Your task to perform on an android device: Open maps Image 0: 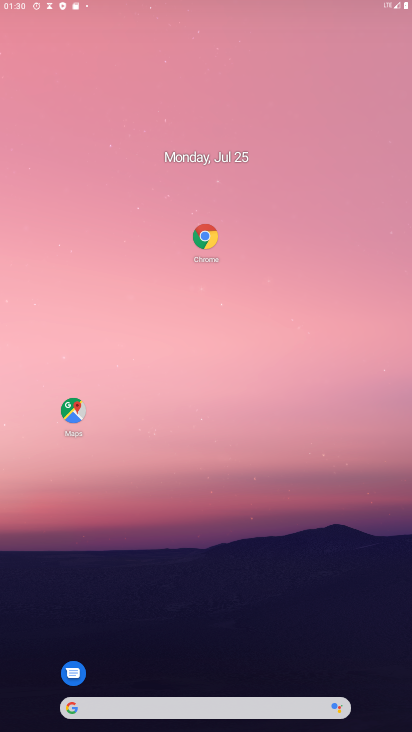
Step 0: press home button
Your task to perform on an android device: Open maps Image 1: 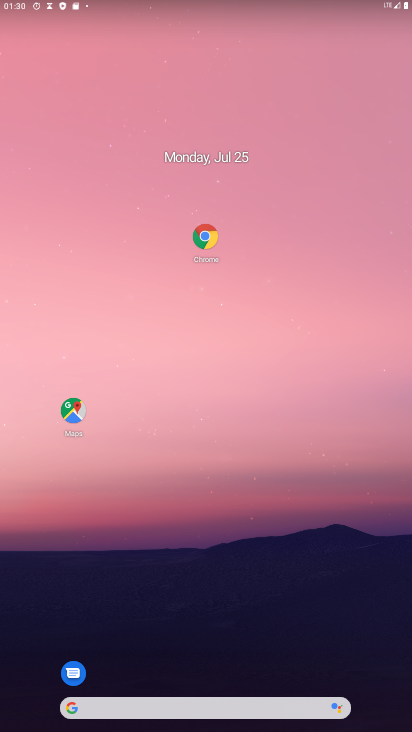
Step 1: drag from (265, 715) to (218, 26)
Your task to perform on an android device: Open maps Image 2: 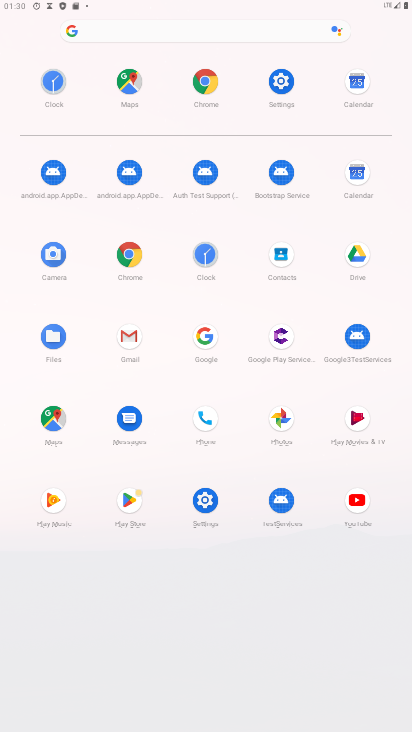
Step 2: click (48, 425)
Your task to perform on an android device: Open maps Image 3: 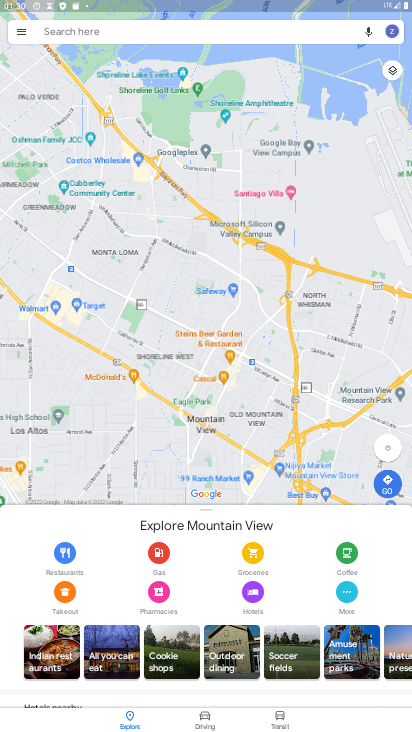
Step 3: task complete